Your task to perform on an android device: open wifi settings Image 0: 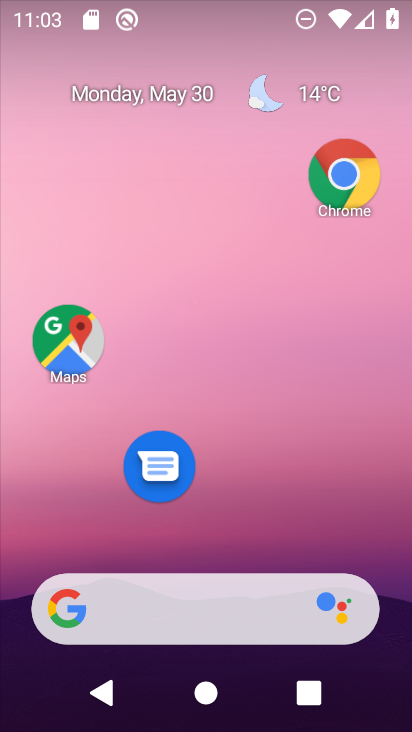
Step 0: drag from (260, 544) to (139, 2)
Your task to perform on an android device: open wifi settings Image 1: 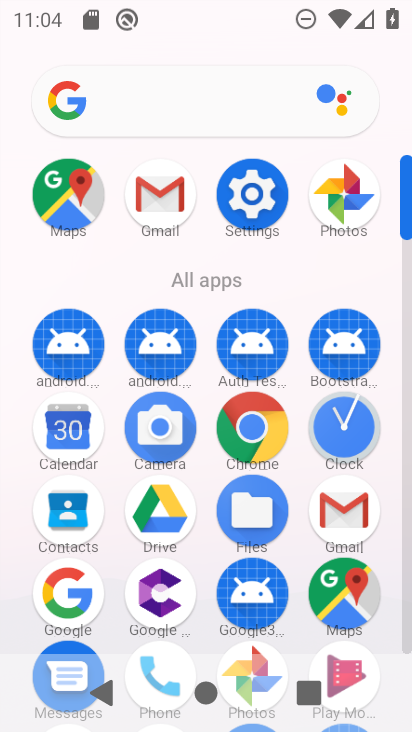
Step 1: click (251, 181)
Your task to perform on an android device: open wifi settings Image 2: 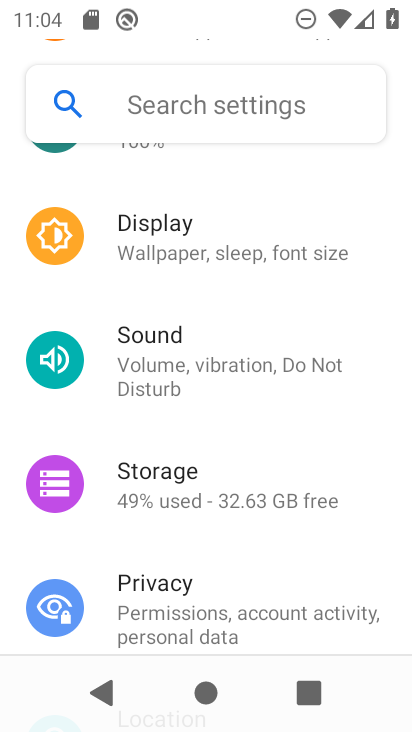
Step 2: drag from (159, 184) to (260, 534)
Your task to perform on an android device: open wifi settings Image 3: 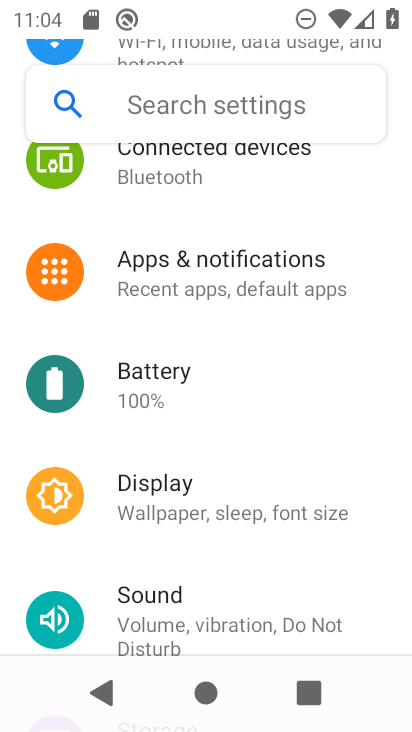
Step 3: drag from (205, 185) to (284, 507)
Your task to perform on an android device: open wifi settings Image 4: 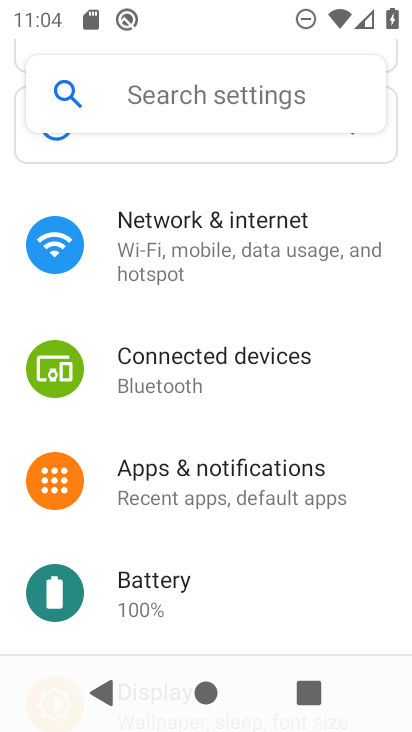
Step 4: click (227, 293)
Your task to perform on an android device: open wifi settings Image 5: 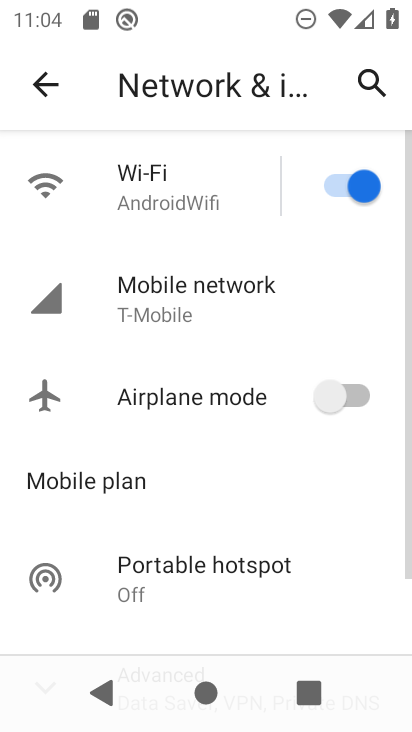
Step 5: click (54, 189)
Your task to perform on an android device: open wifi settings Image 6: 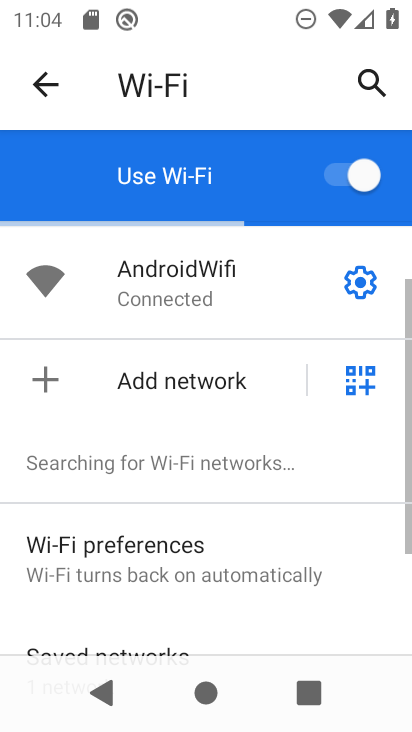
Step 6: task complete